Your task to perform on an android device: Open the phone app and click the voicemail tab. Image 0: 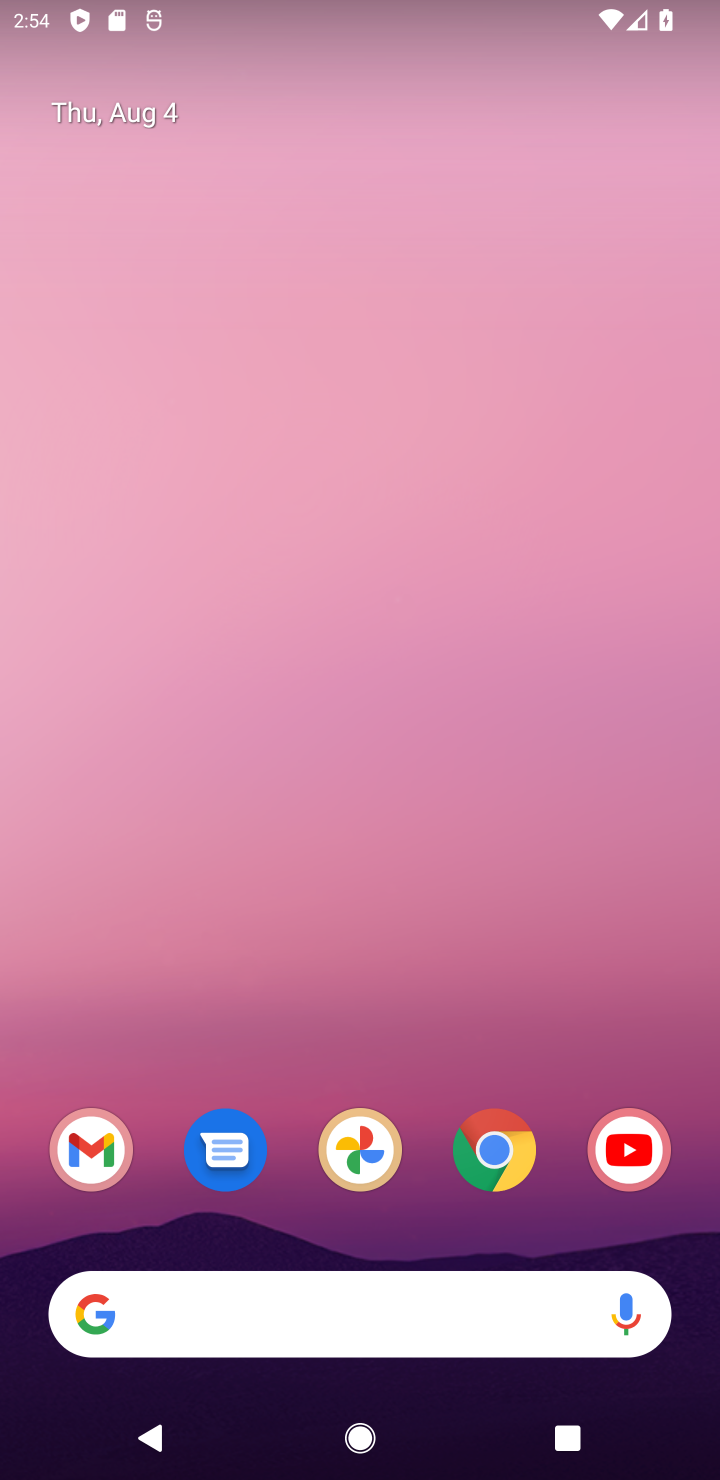
Step 0: click (406, 152)
Your task to perform on an android device: Open the phone app and click the voicemail tab. Image 1: 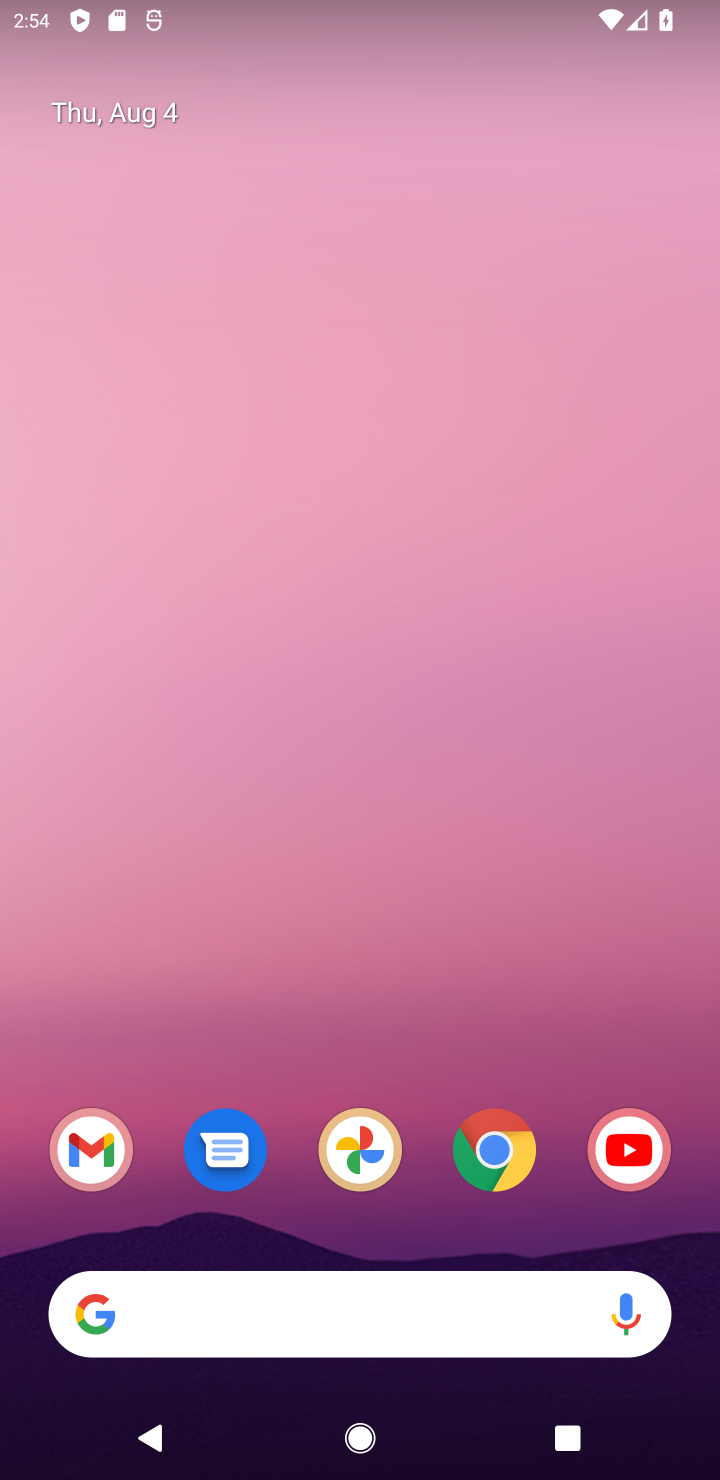
Step 1: drag from (459, 847) to (452, 224)
Your task to perform on an android device: Open the phone app and click the voicemail tab. Image 2: 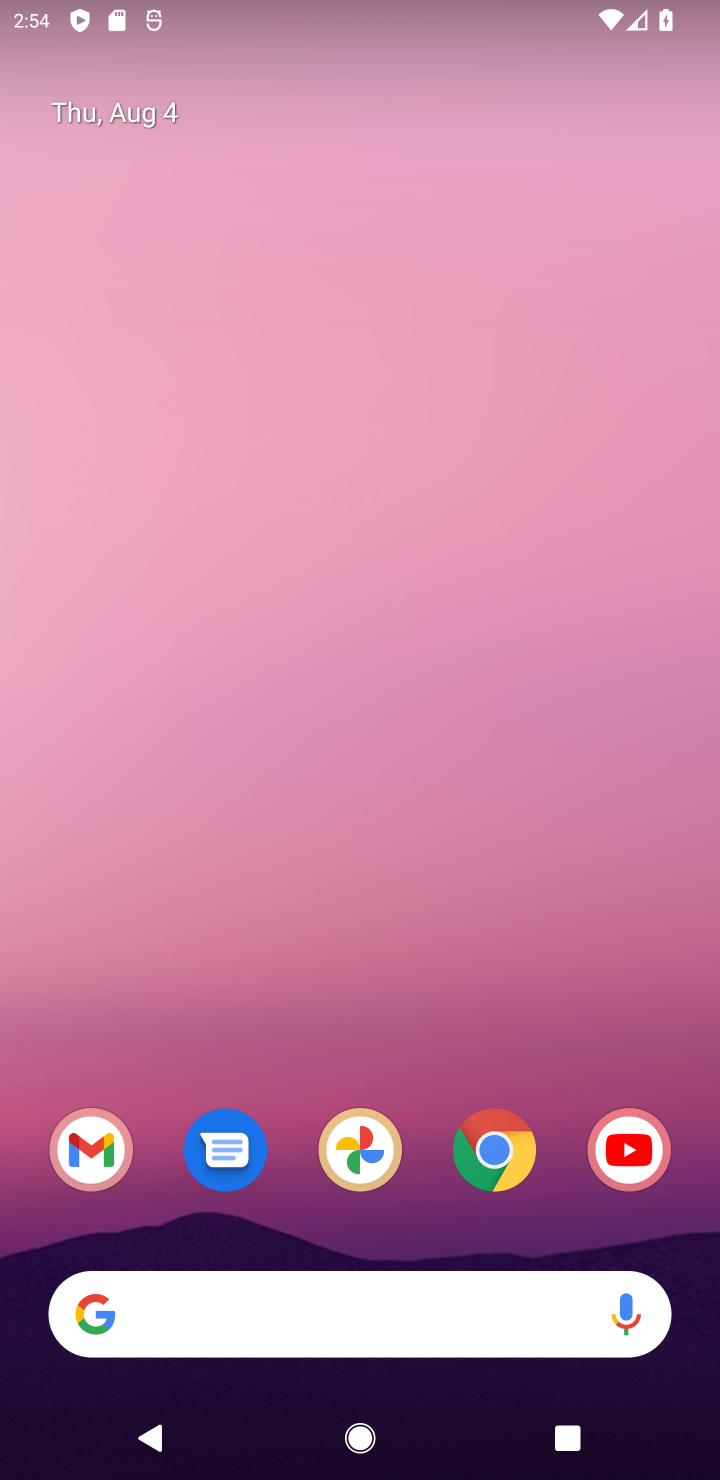
Step 2: drag from (428, 962) to (452, 141)
Your task to perform on an android device: Open the phone app and click the voicemail tab. Image 3: 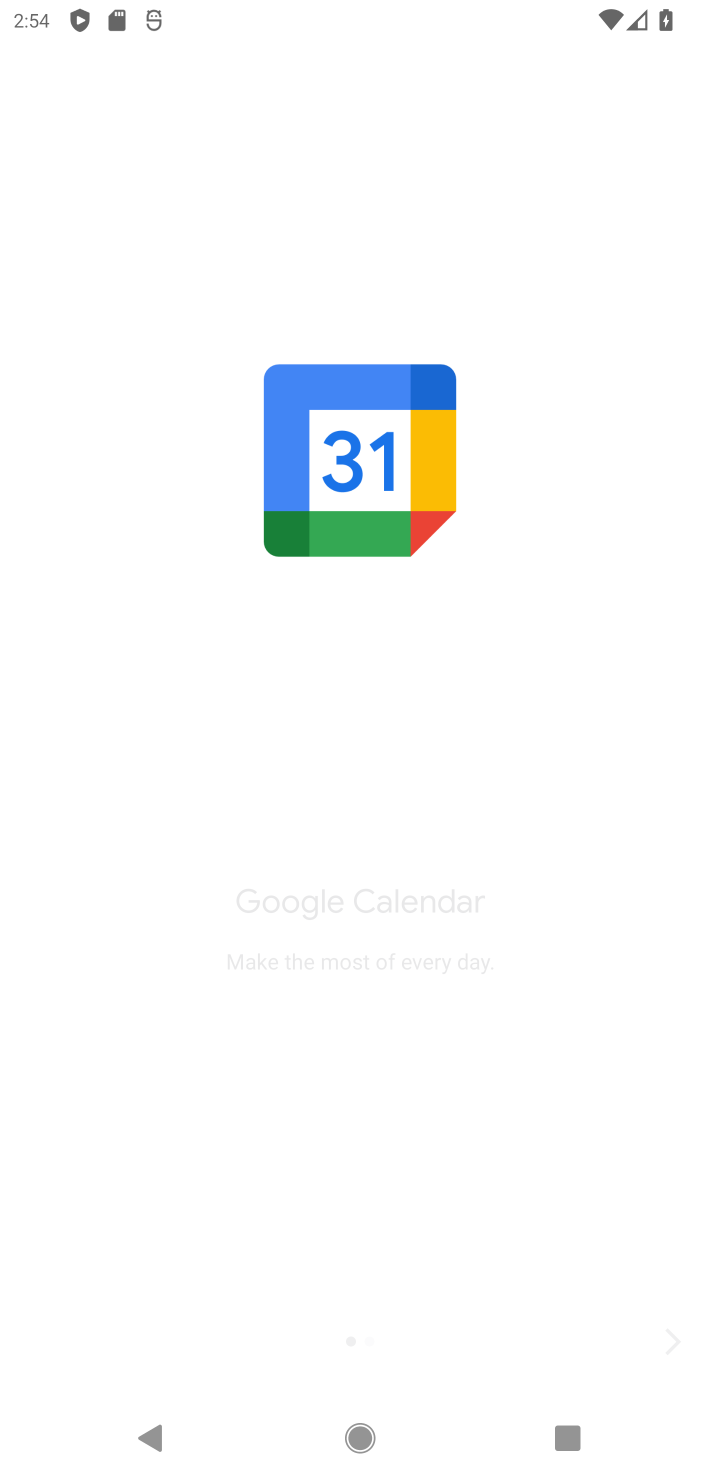
Step 3: drag from (469, 987) to (356, 356)
Your task to perform on an android device: Open the phone app and click the voicemail tab. Image 4: 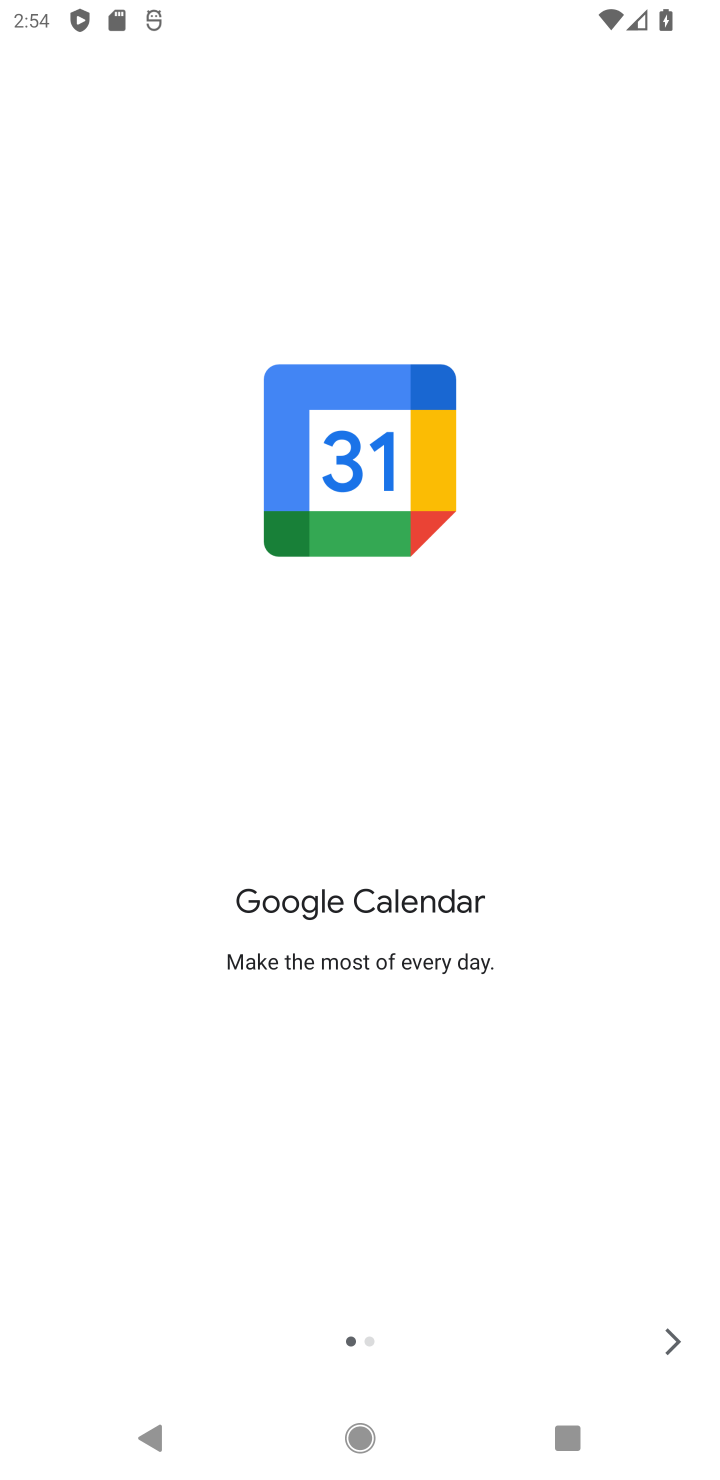
Step 4: press back button
Your task to perform on an android device: Open the phone app and click the voicemail tab. Image 5: 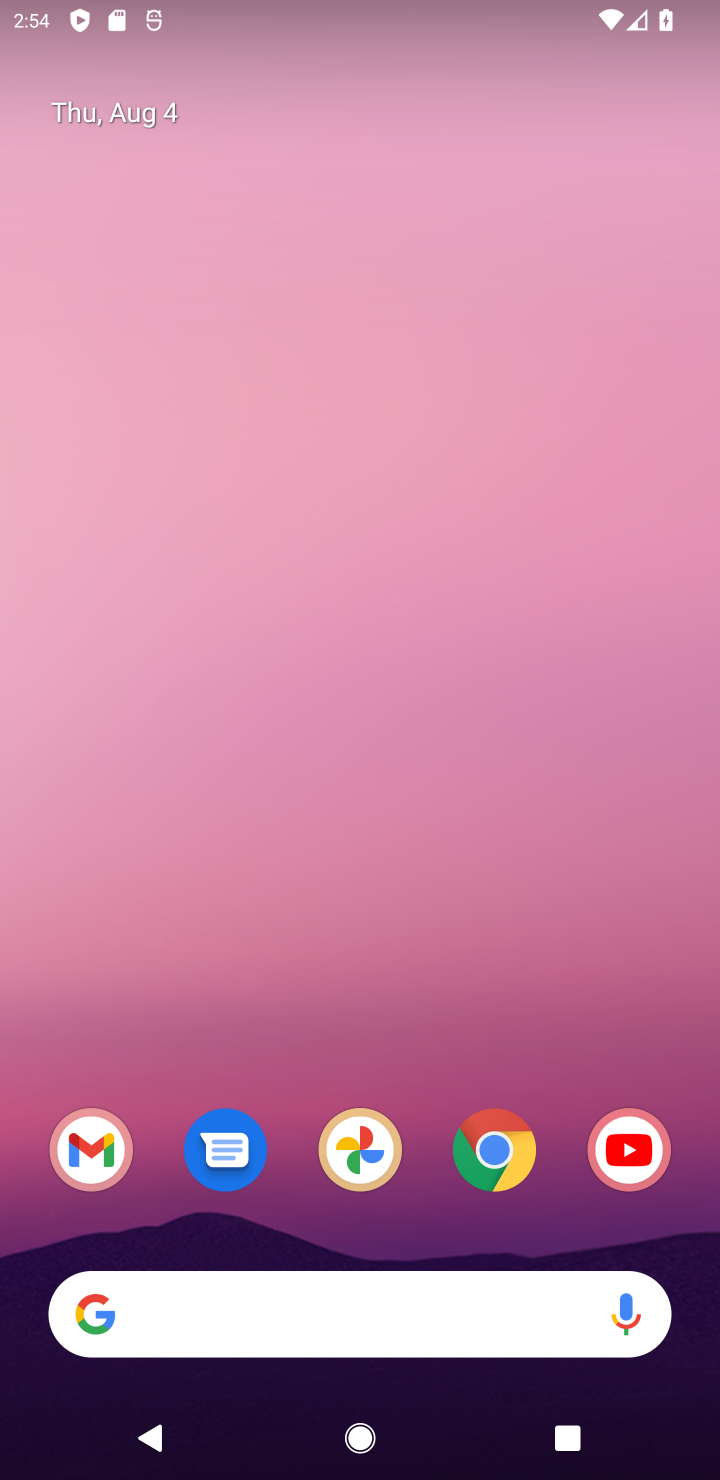
Step 5: press home button
Your task to perform on an android device: Open the phone app and click the voicemail tab. Image 6: 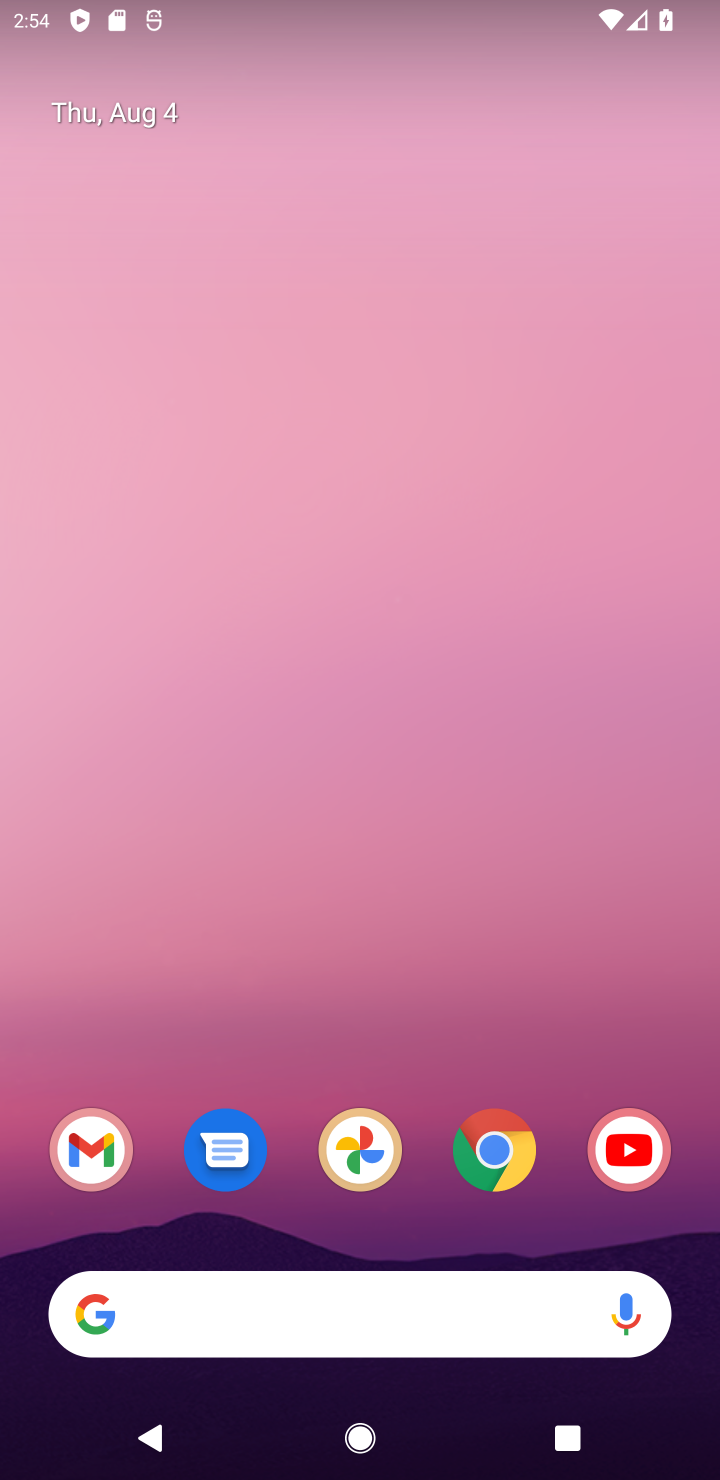
Step 6: drag from (428, 1240) to (380, 436)
Your task to perform on an android device: Open the phone app and click the voicemail tab. Image 7: 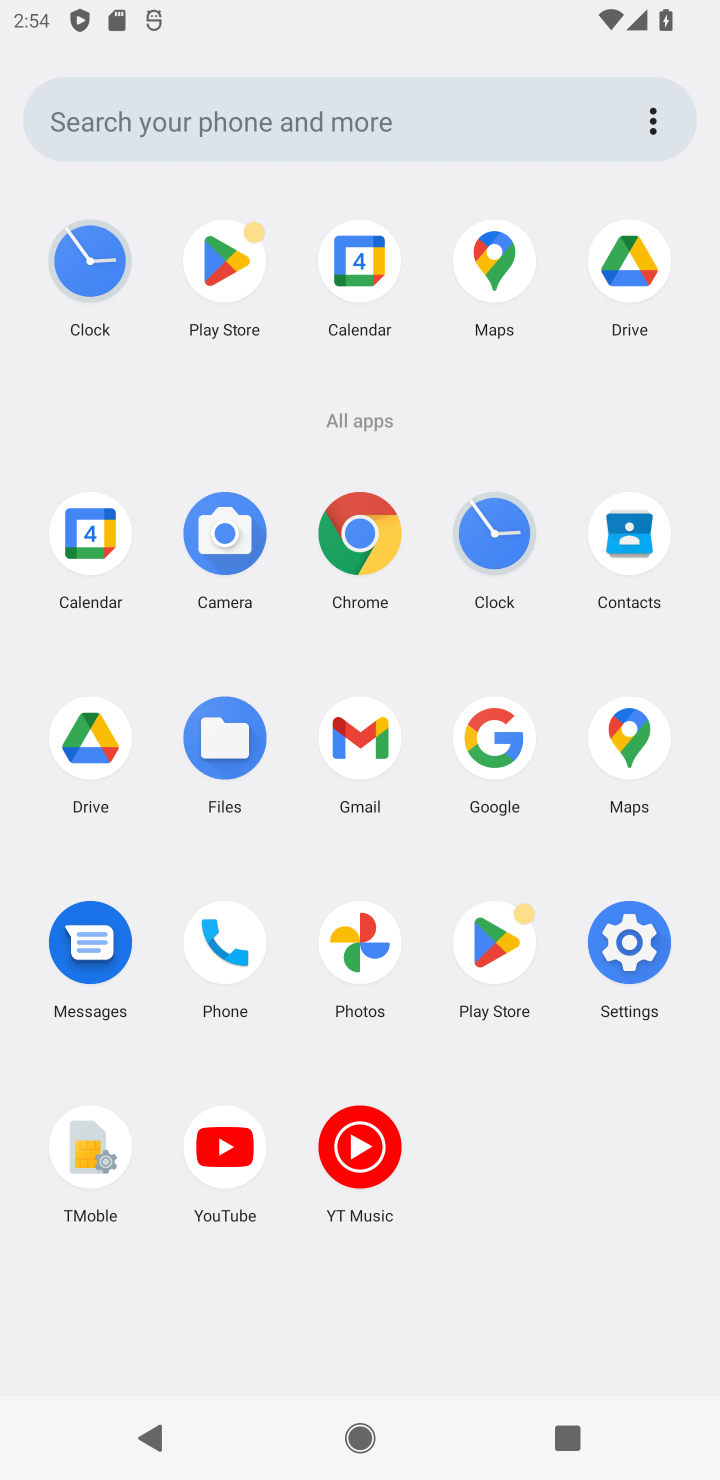
Step 7: click (207, 932)
Your task to perform on an android device: Open the phone app and click the voicemail tab. Image 8: 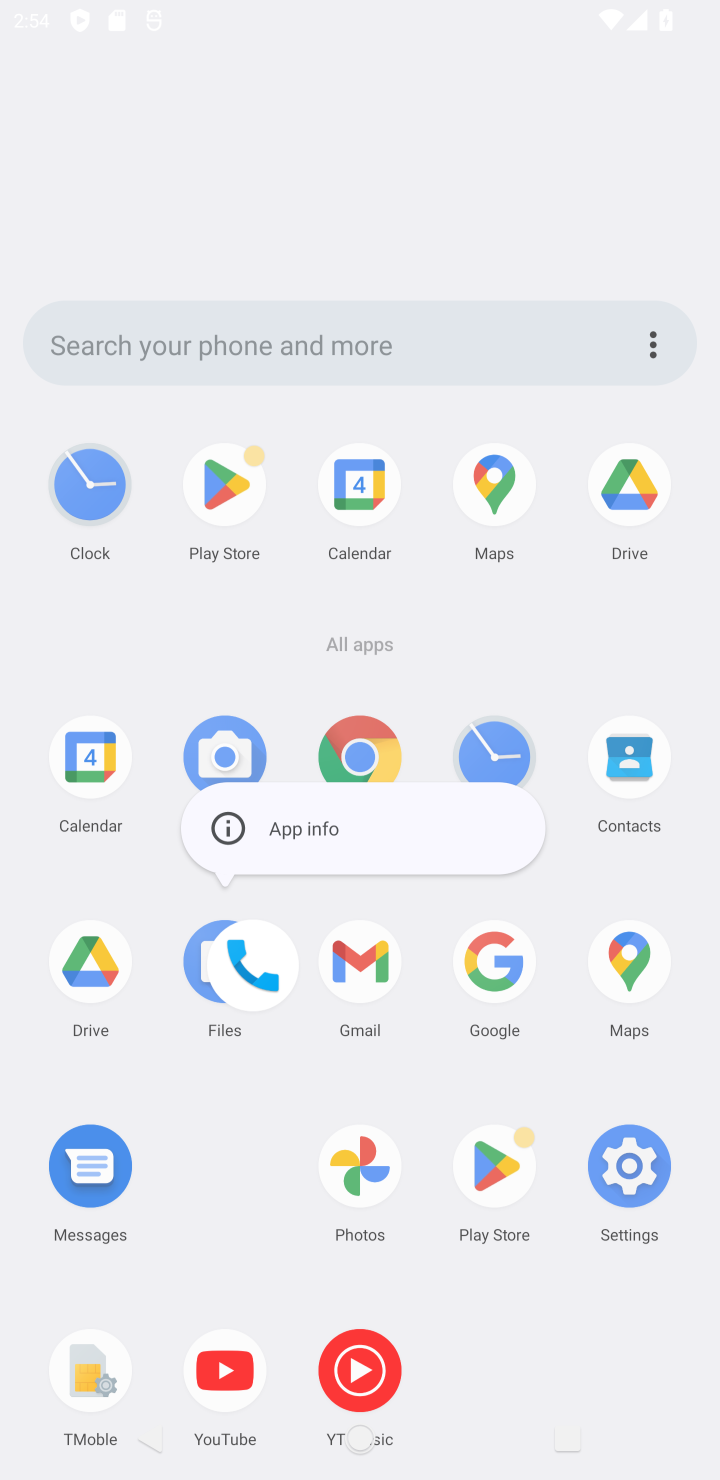
Step 8: click (228, 950)
Your task to perform on an android device: Open the phone app and click the voicemail tab. Image 9: 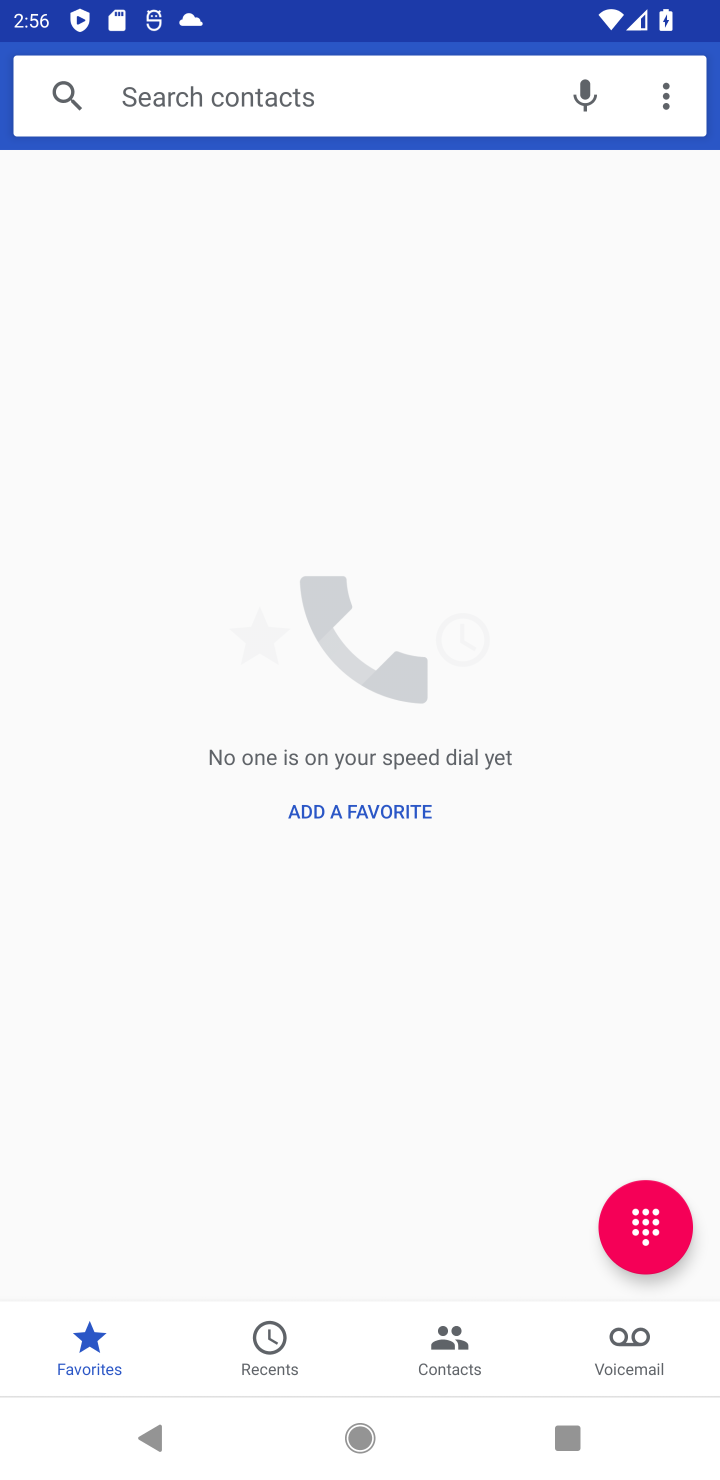
Step 9: click (633, 1340)
Your task to perform on an android device: Open the phone app and click the voicemail tab. Image 10: 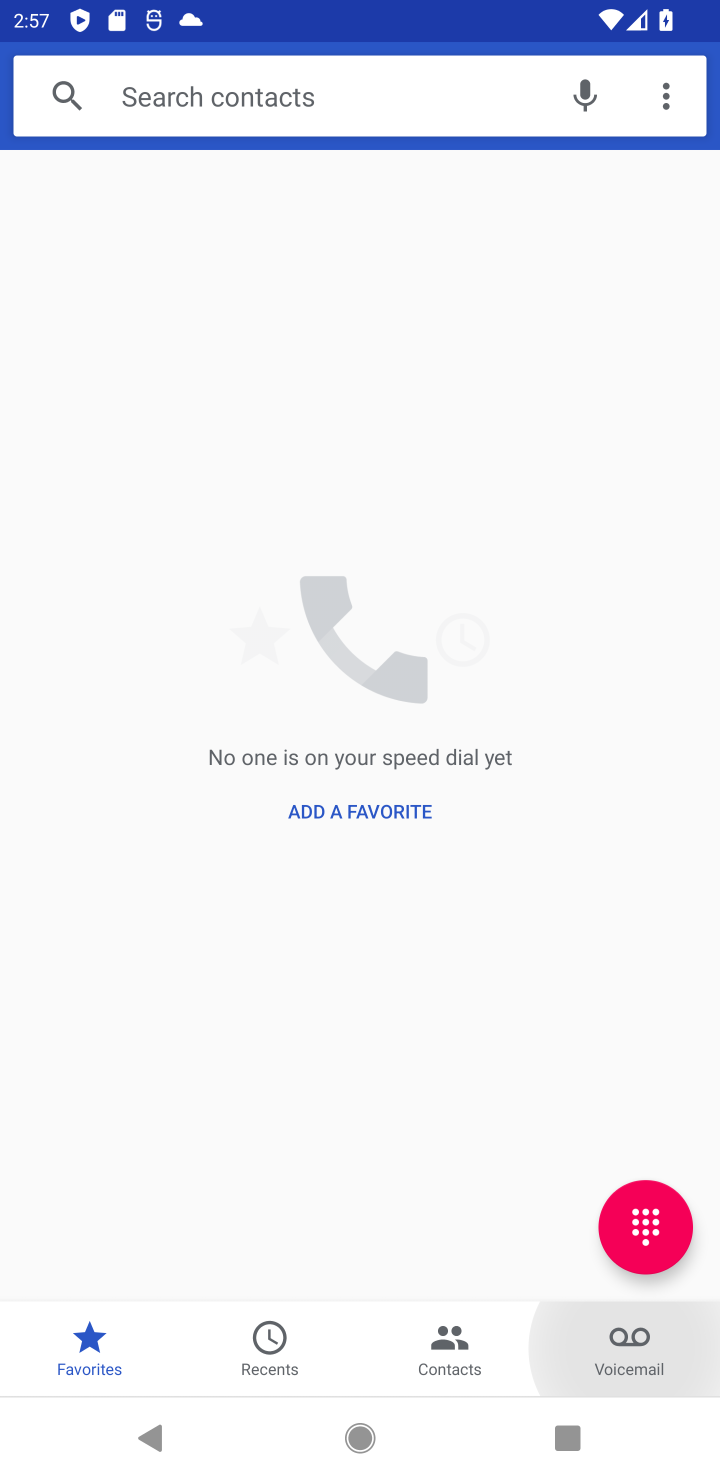
Step 10: click (635, 1338)
Your task to perform on an android device: Open the phone app and click the voicemail tab. Image 11: 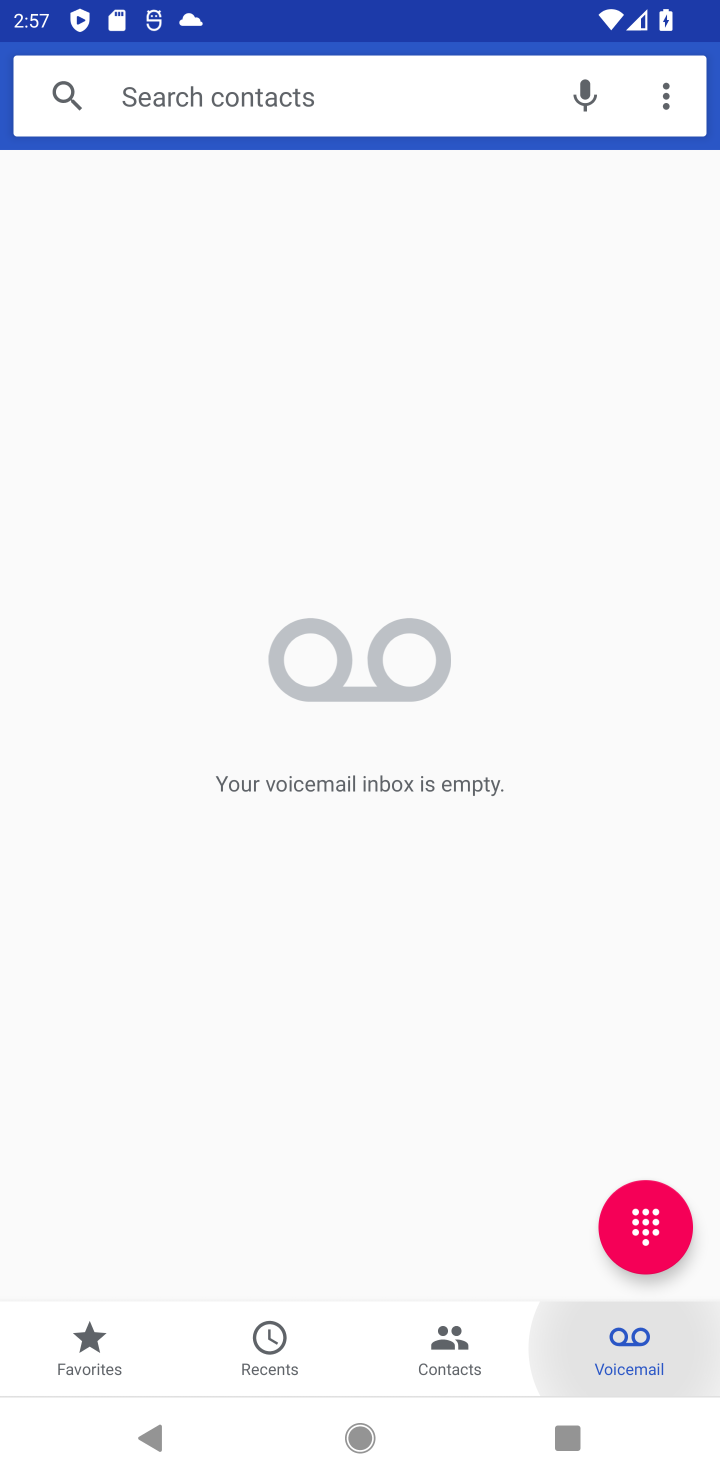
Step 11: click (635, 1359)
Your task to perform on an android device: Open the phone app and click the voicemail tab. Image 12: 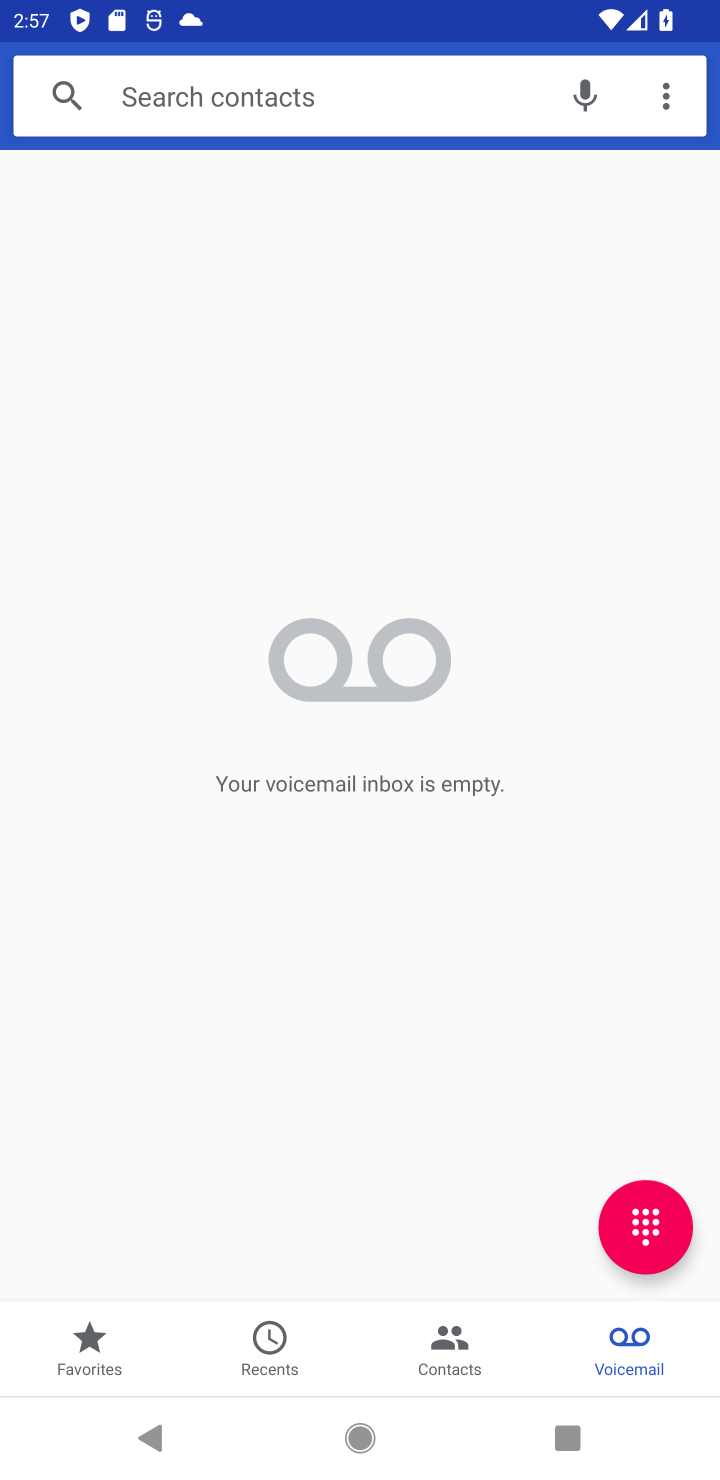
Step 12: click (647, 1358)
Your task to perform on an android device: Open the phone app and click the voicemail tab. Image 13: 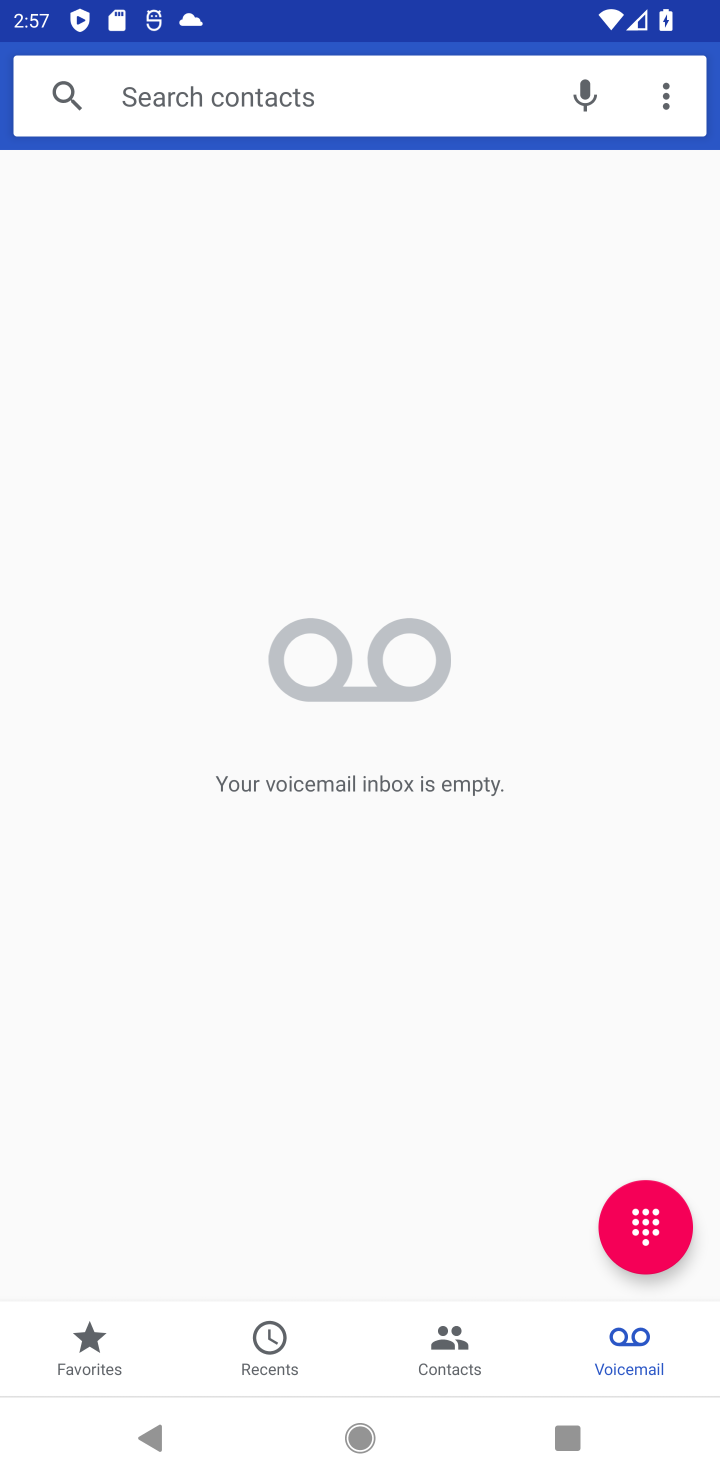
Step 13: task complete